Your task to perform on an android device: check storage Image 0: 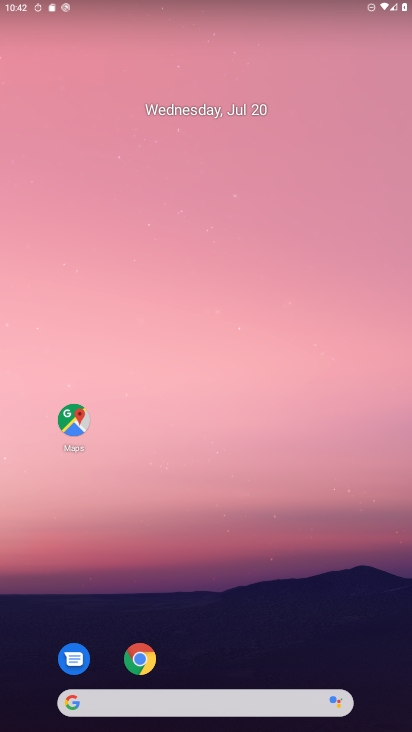
Step 0: drag from (277, 573) to (291, 127)
Your task to perform on an android device: check storage Image 1: 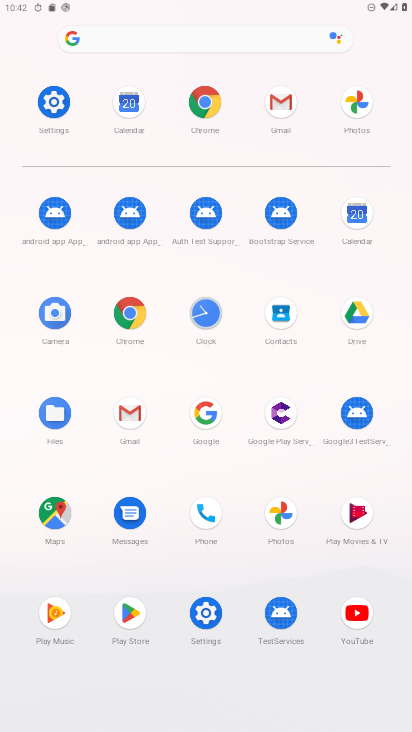
Step 1: click (62, 95)
Your task to perform on an android device: check storage Image 2: 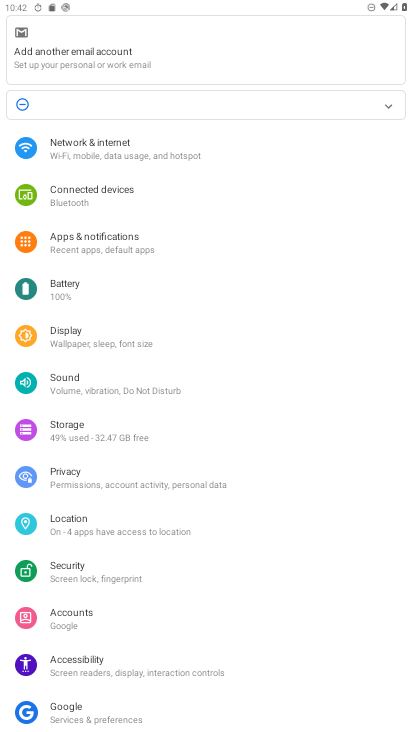
Step 2: click (108, 425)
Your task to perform on an android device: check storage Image 3: 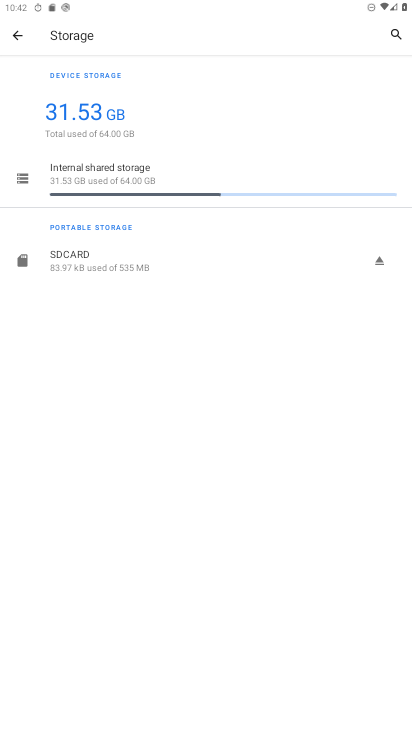
Step 3: task complete